Your task to perform on an android device: Show me recent news Image 0: 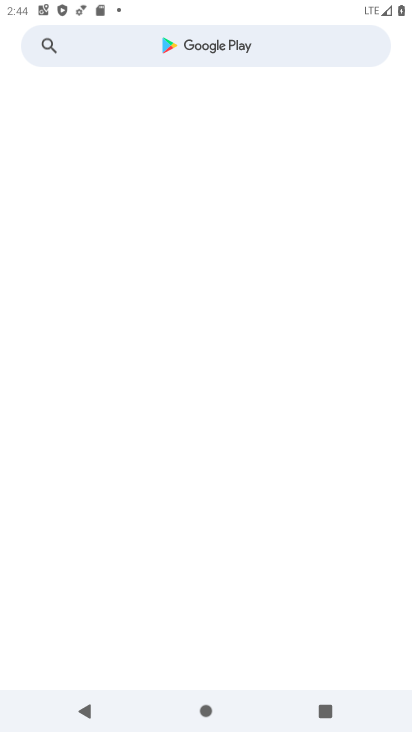
Step 0: press home button
Your task to perform on an android device: Show me recent news Image 1: 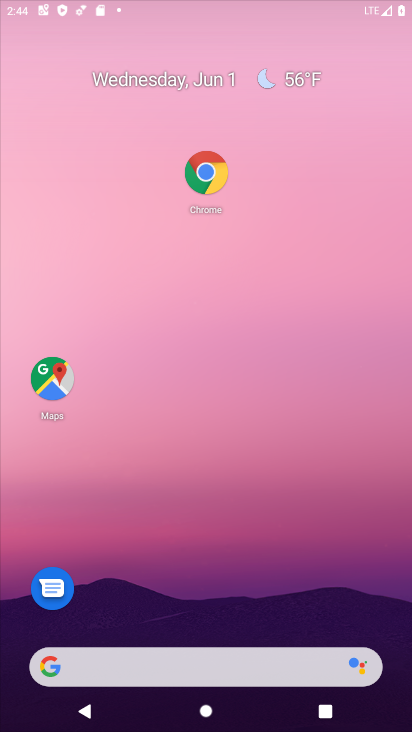
Step 1: drag from (206, 574) to (258, 35)
Your task to perform on an android device: Show me recent news Image 2: 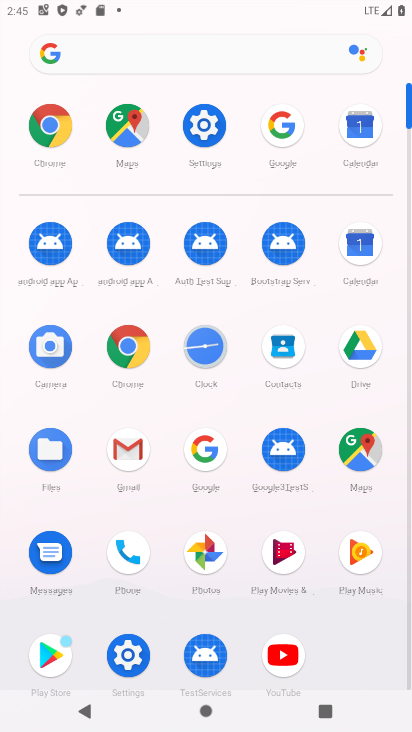
Step 2: click (210, 445)
Your task to perform on an android device: Show me recent news Image 3: 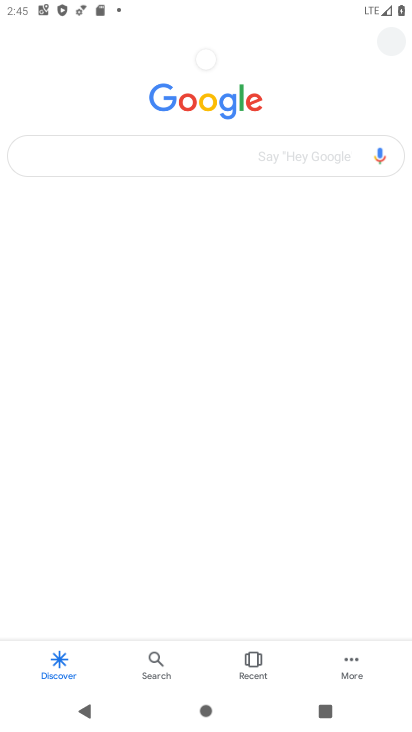
Step 3: click (188, 161)
Your task to perform on an android device: Show me recent news Image 4: 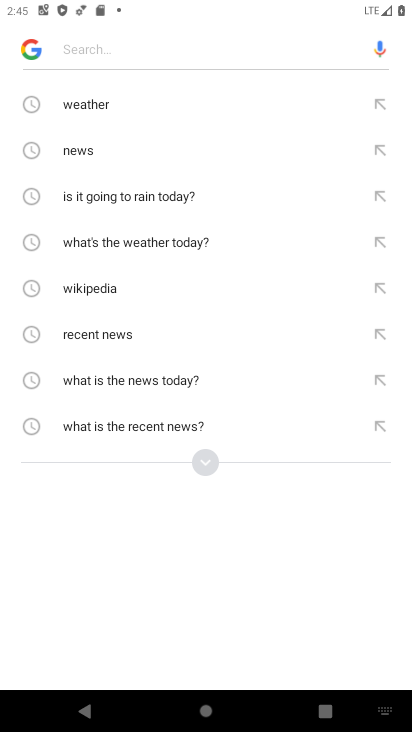
Step 4: click (126, 336)
Your task to perform on an android device: Show me recent news Image 5: 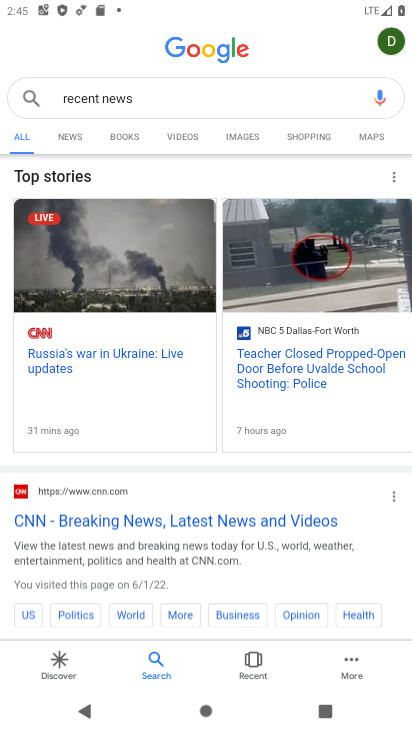
Step 5: task complete